Your task to perform on an android device: change the clock display to analog Image 0: 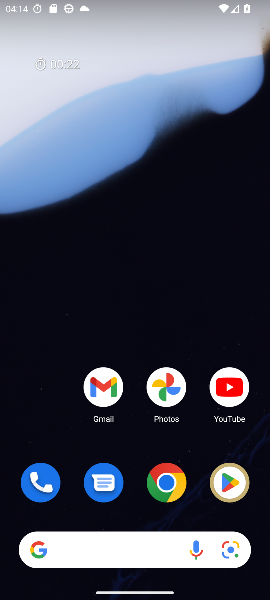
Step 0: drag from (132, 502) to (131, 62)
Your task to perform on an android device: change the clock display to analog Image 1: 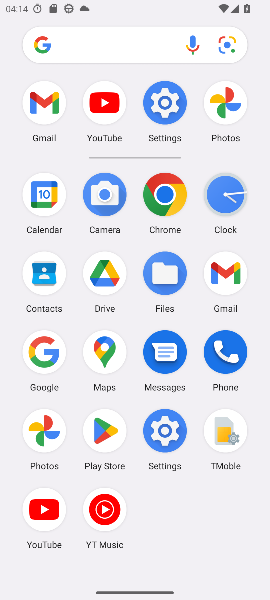
Step 1: click (230, 196)
Your task to perform on an android device: change the clock display to analog Image 2: 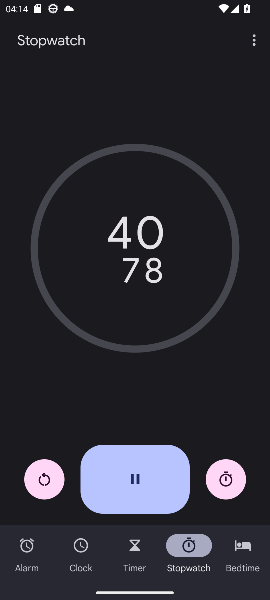
Step 2: click (253, 43)
Your task to perform on an android device: change the clock display to analog Image 3: 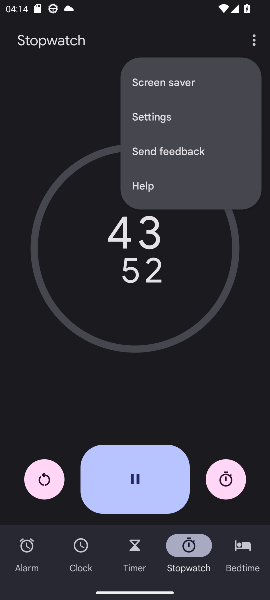
Step 3: click (162, 108)
Your task to perform on an android device: change the clock display to analog Image 4: 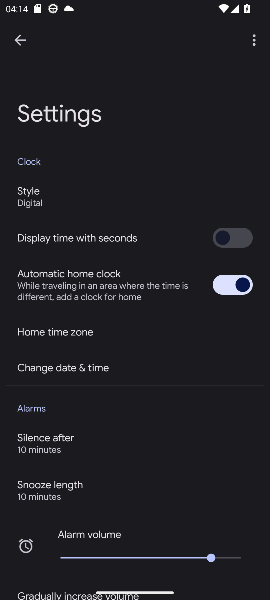
Step 4: click (39, 200)
Your task to perform on an android device: change the clock display to analog Image 5: 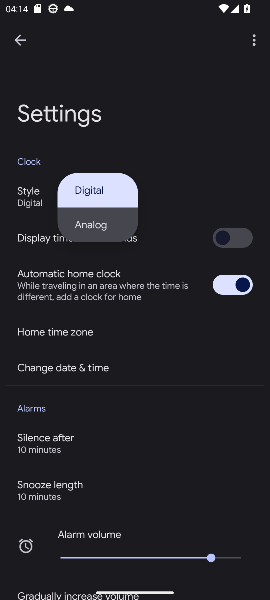
Step 5: click (109, 224)
Your task to perform on an android device: change the clock display to analog Image 6: 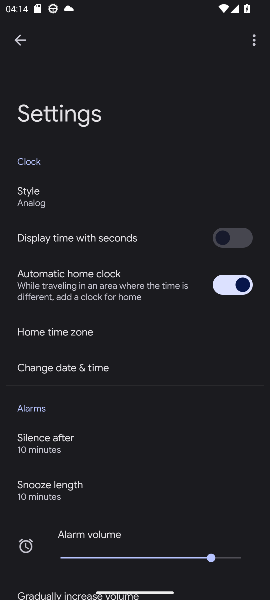
Step 6: task complete